Your task to perform on an android device: toggle show notifications on the lock screen Image 0: 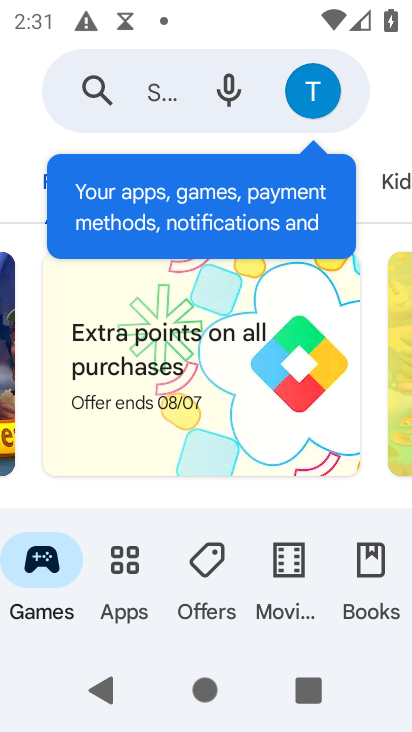
Step 0: press back button
Your task to perform on an android device: toggle show notifications on the lock screen Image 1: 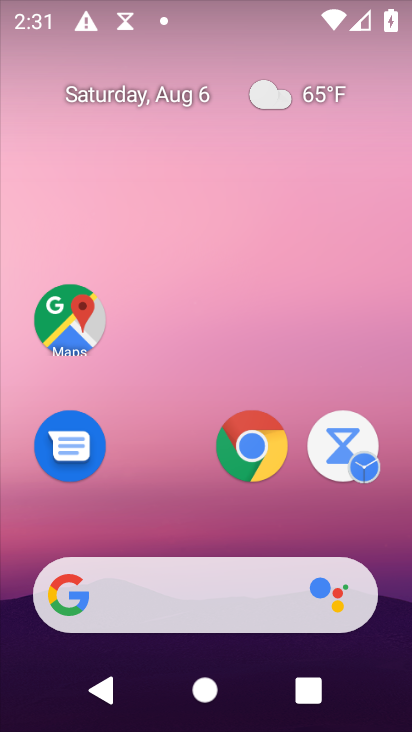
Step 1: drag from (223, 555) to (166, 87)
Your task to perform on an android device: toggle show notifications on the lock screen Image 2: 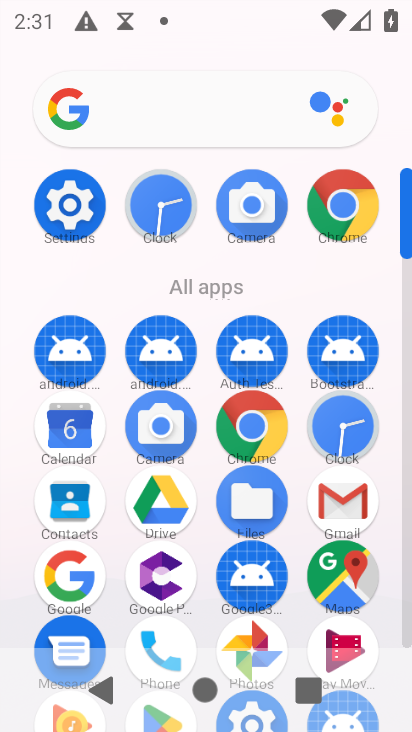
Step 2: drag from (239, 592) to (166, 284)
Your task to perform on an android device: toggle show notifications on the lock screen Image 3: 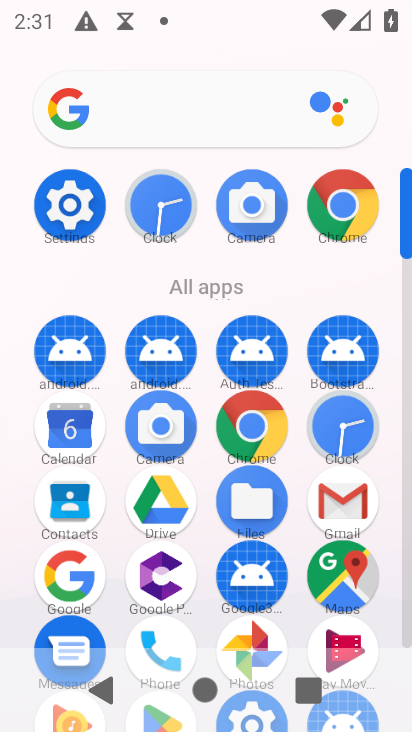
Step 3: click (69, 211)
Your task to perform on an android device: toggle show notifications on the lock screen Image 4: 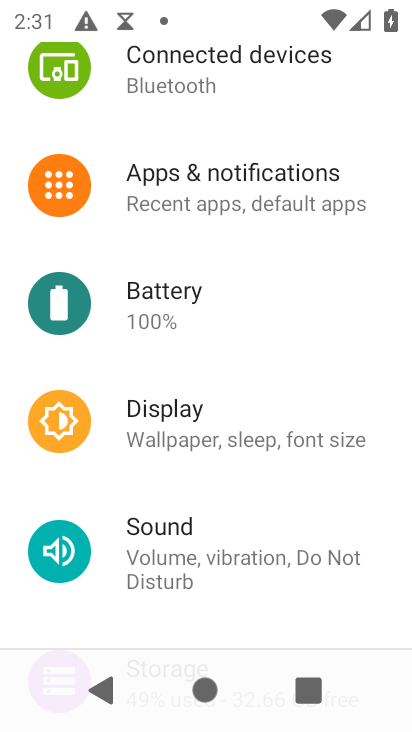
Step 4: click (201, 191)
Your task to perform on an android device: toggle show notifications on the lock screen Image 5: 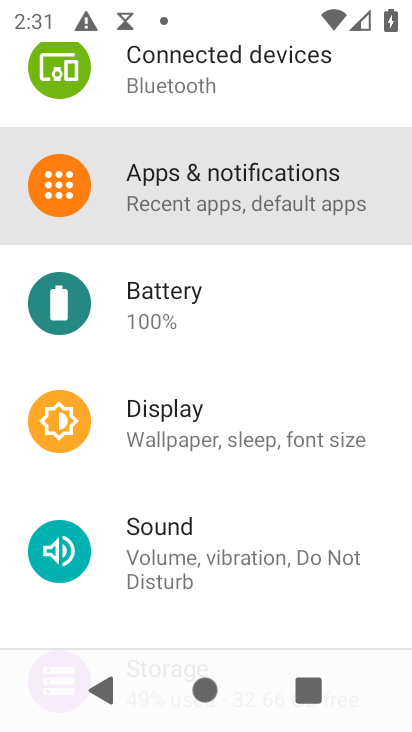
Step 5: click (201, 191)
Your task to perform on an android device: toggle show notifications on the lock screen Image 6: 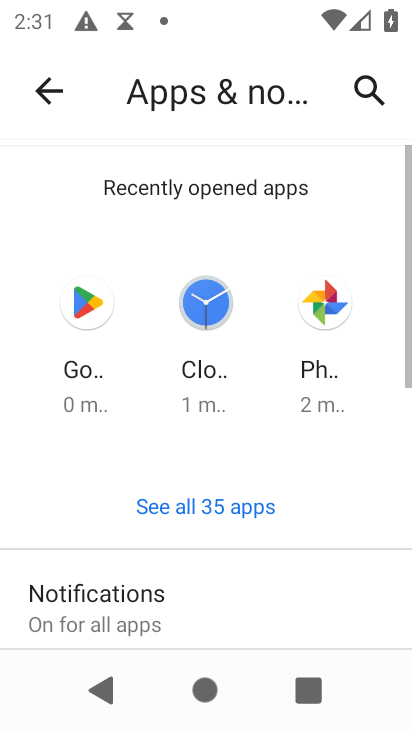
Step 6: drag from (235, 487) to (152, 182)
Your task to perform on an android device: toggle show notifications on the lock screen Image 7: 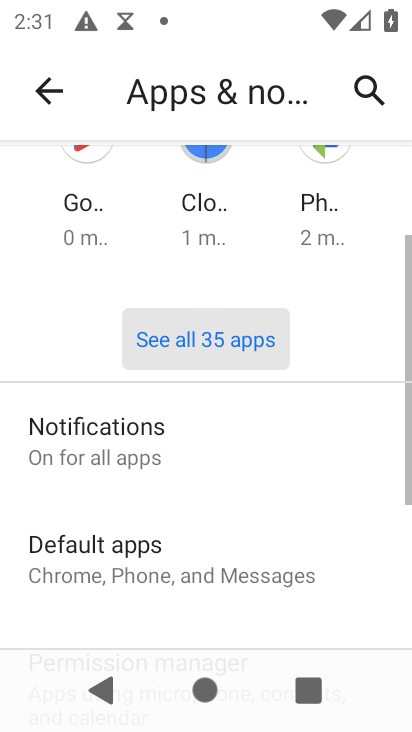
Step 7: drag from (208, 388) to (209, 178)
Your task to perform on an android device: toggle show notifications on the lock screen Image 8: 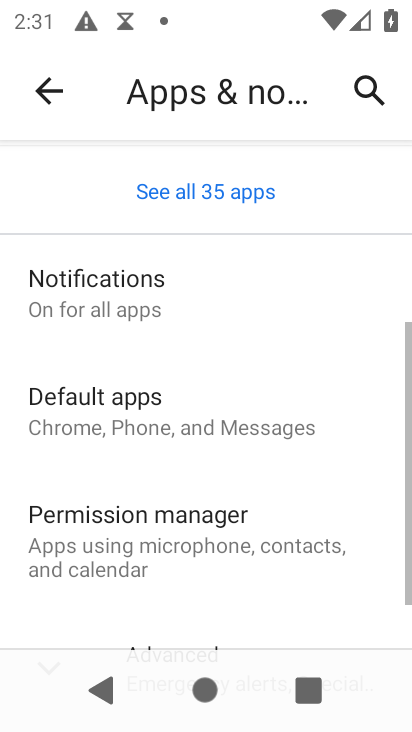
Step 8: drag from (237, 367) to (232, 239)
Your task to perform on an android device: toggle show notifications on the lock screen Image 9: 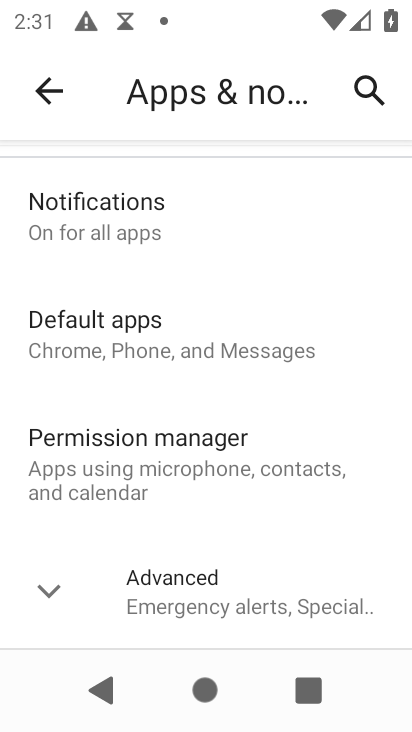
Step 9: click (92, 220)
Your task to perform on an android device: toggle show notifications on the lock screen Image 10: 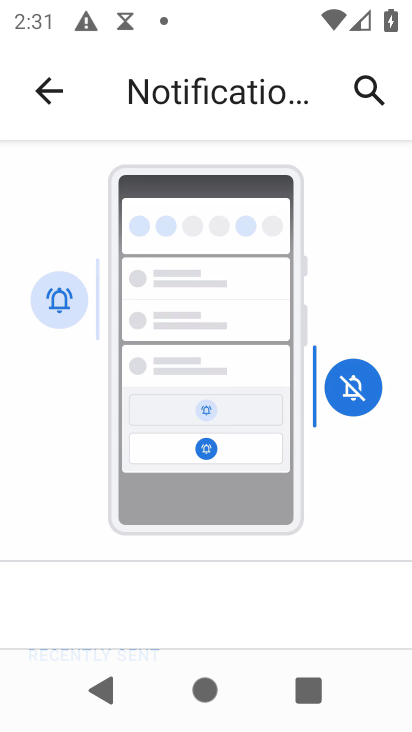
Step 10: drag from (211, 482) to (188, 175)
Your task to perform on an android device: toggle show notifications on the lock screen Image 11: 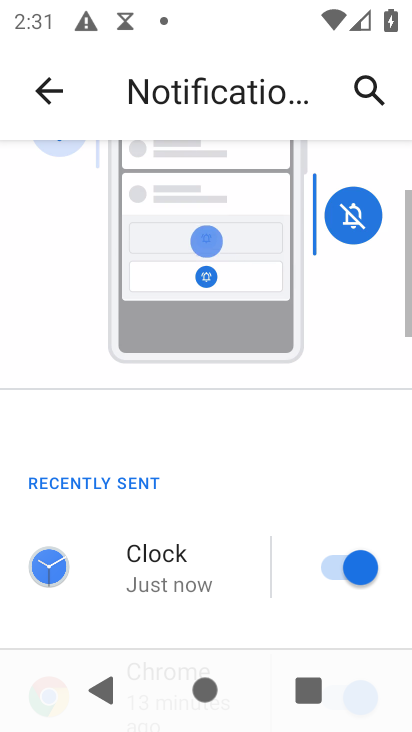
Step 11: drag from (263, 403) to (274, 216)
Your task to perform on an android device: toggle show notifications on the lock screen Image 12: 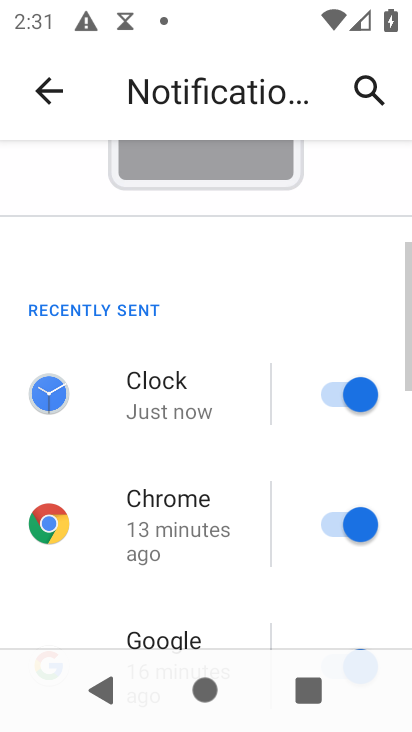
Step 12: drag from (297, 396) to (201, 285)
Your task to perform on an android device: toggle show notifications on the lock screen Image 13: 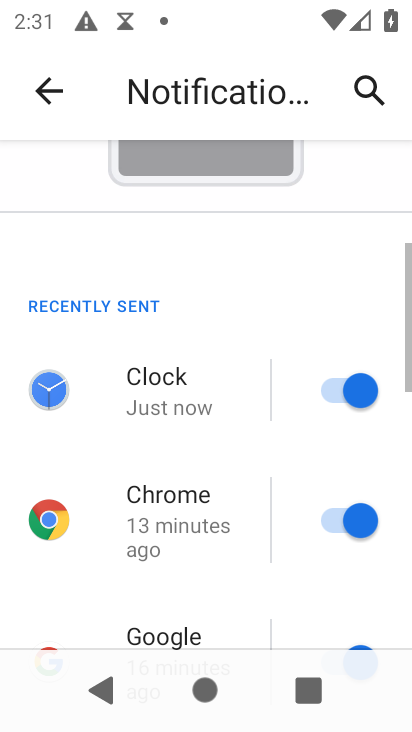
Step 13: drag from (215, 408) to (216, 199)
Your task to perform on an android device: toggle show notifications on the lock screen Image 14: 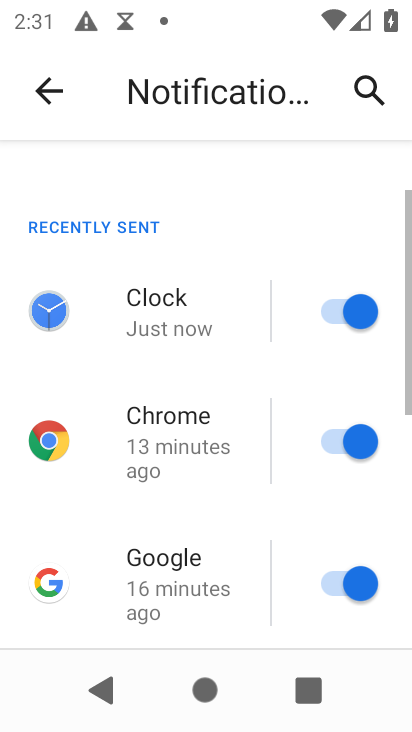
Step 14: drag from (252, 486) to (252, 206)
Your task to perform on an android device: toggle show notifications on the lock screen Image 15: 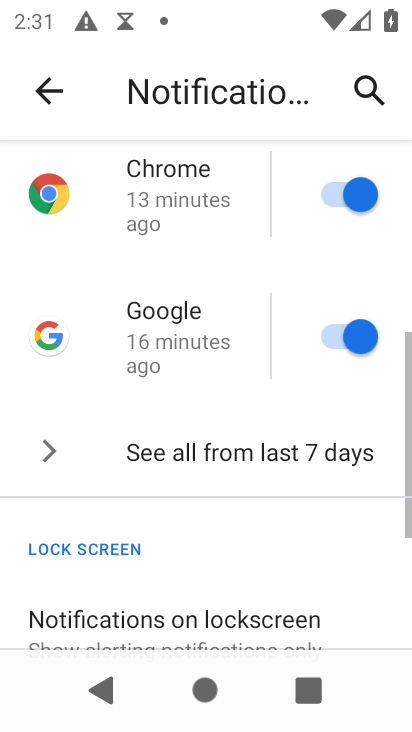
Step 15: drag from (285, 436) to (285, 192)
Your task to perform on an android device: toggle show notifications on the lock screen Image 16: 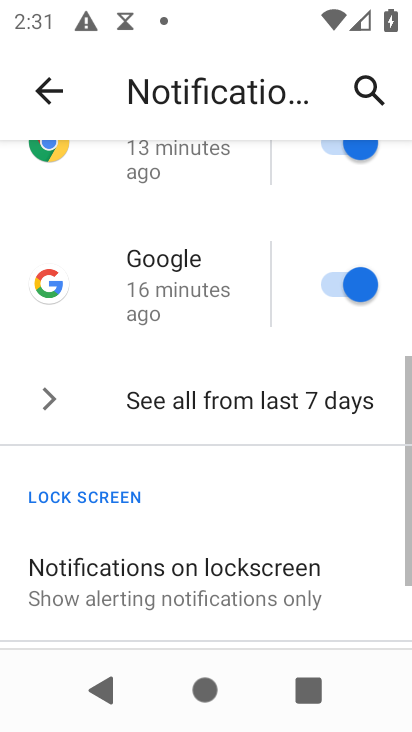
Step 16: drag from (276, 485) to (223, 199)
Your task to perform on an android device: toggle show notifications on the lock screen Image 17: 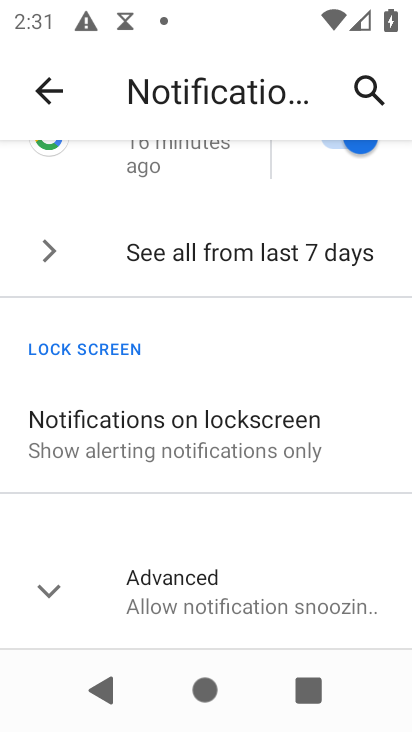
Step 17: click (150, 585)
Your task to perform on an android device: toggle show notifications on the lock screen Image 18: 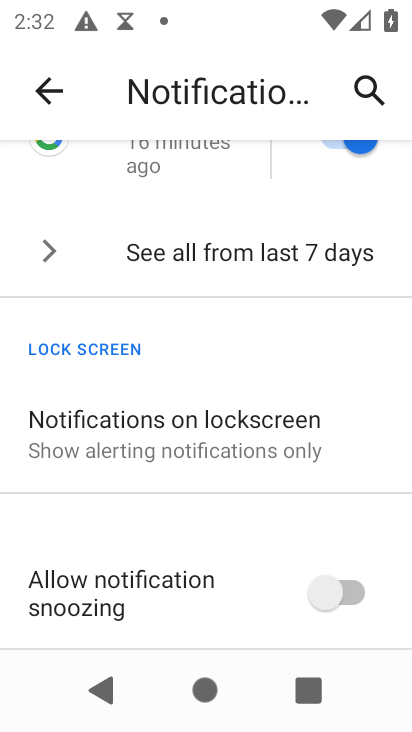
Step 18: click (175, 423)
Your task to perform on an android device: toggle show notifications on the lock screen Image 19: 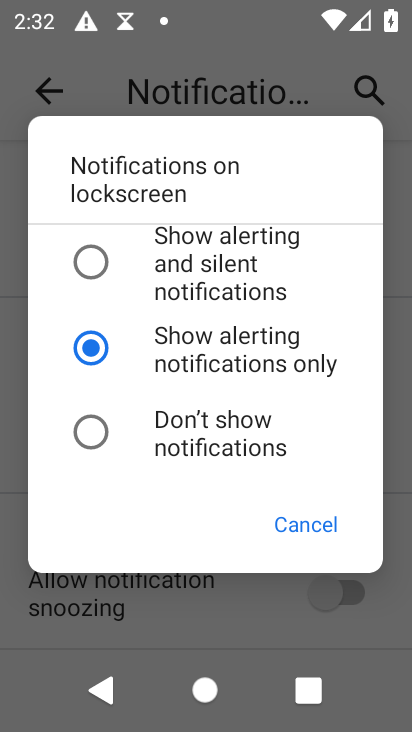
Step 19: click (87, 264)
Your task to perform on an android device: toggle show notifications on the lock screen Image 20: 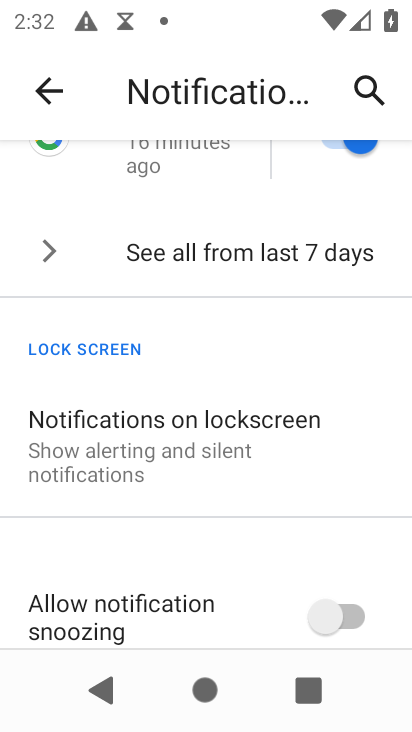
Step 20: task complete